Your task to perform on an android device: Show me productivity apps on the Play Store Image 0: 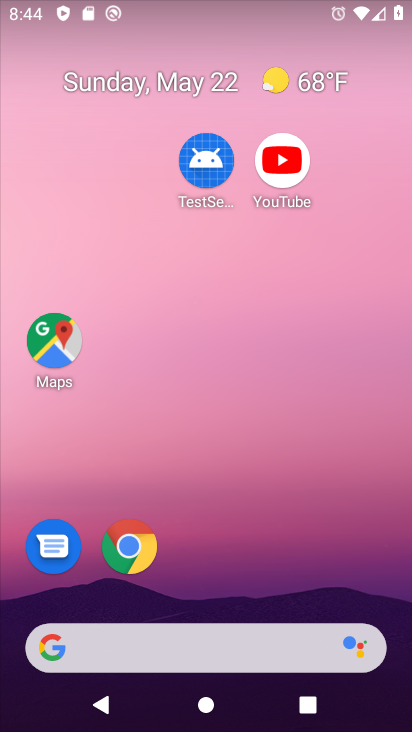
Step 0: drag from (236, 579) to (120, 129)
Your task to perform on an android device: Show me productivity apps on the Play Store Image 1: 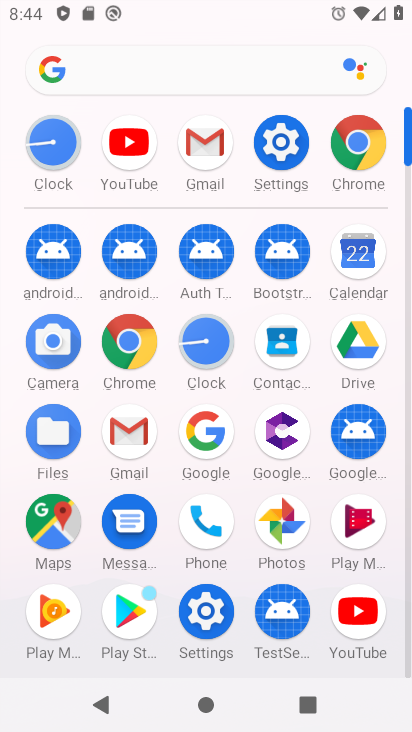
Step 1: click (126, 608)
Your task to perform on an android device: Show me productivity apps on the Play Store Image 2: 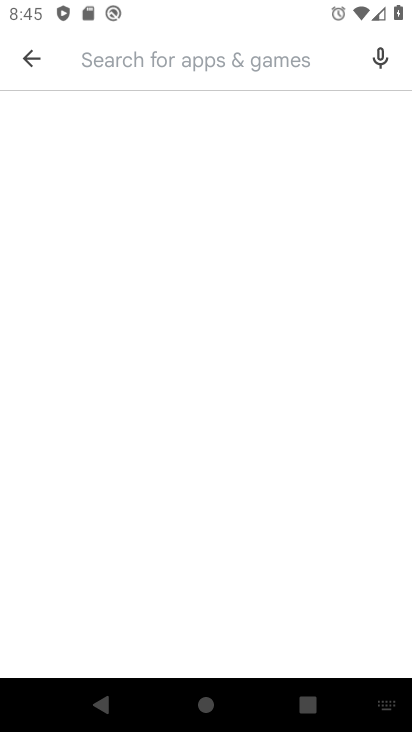
Step 2: type "productivity apps"
Your task to perform on an android device: Show me productivity apps on the Play Store Image 3: 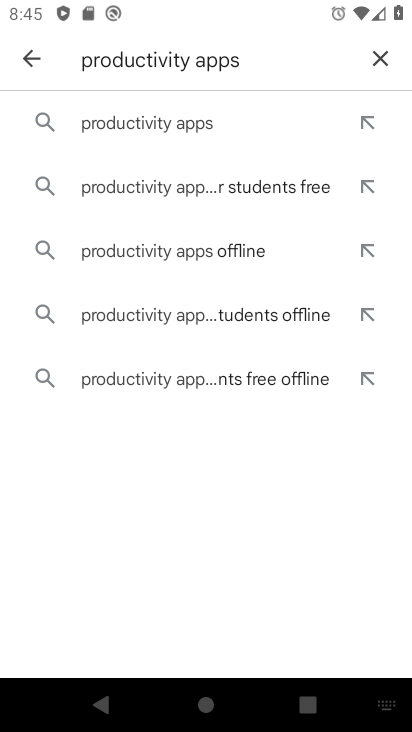
Step 3: click (151, 135)
Your task to perform on an android device: Show me productivity apps on the Play Store Image 4: 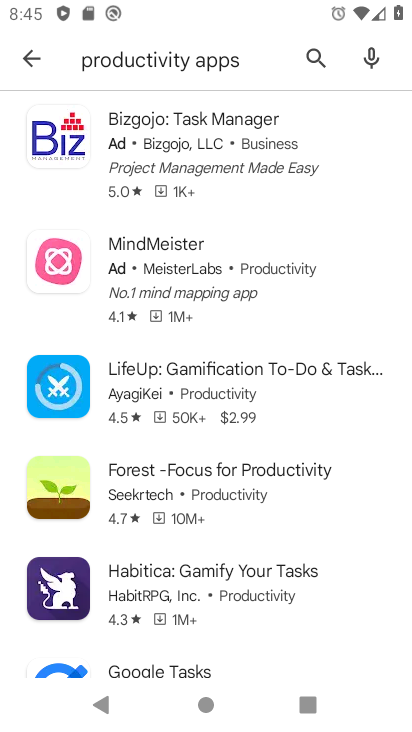
Step 4: task complete